Your task to perform on an android device: Is it going to rain tomorrow? Image 0: 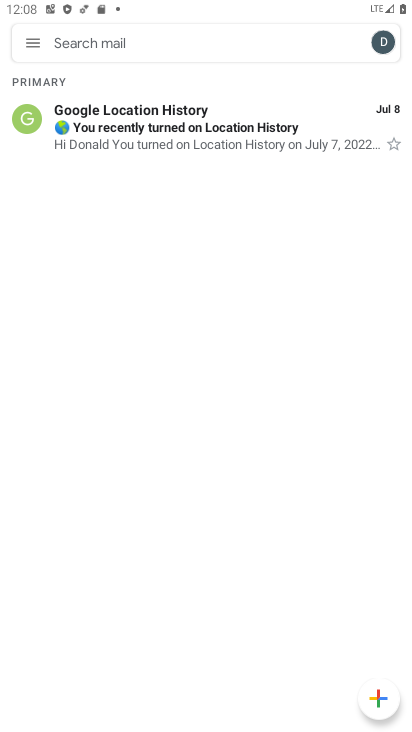
Step 0: press home button
Your task to perform on an android device: Is it going to rain tomorrow? Image 1: 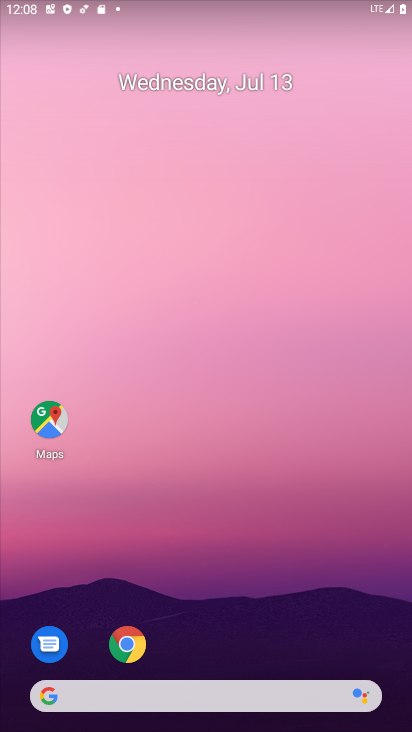
Step 1: drag from (198, 625) to (221, 151)
Your task to perform on an android device: Is it going to rain tomorrow? Image 2: 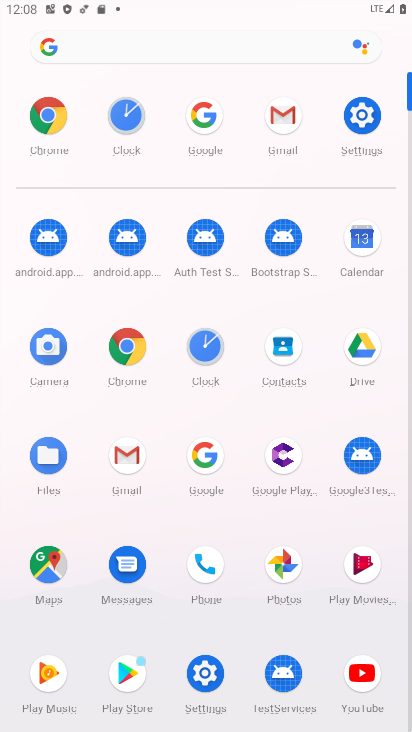
Step 2: click (210, 118)
Your task to perform on an android device: Is it going to rain tomorrow? Image 3: 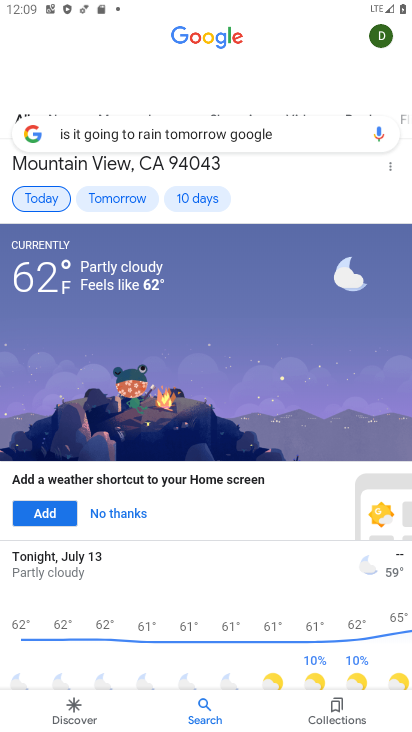
Step 3: click (118, 196)
Your task to perform on an android device: Is it going to rain tomorrow? Image 4: 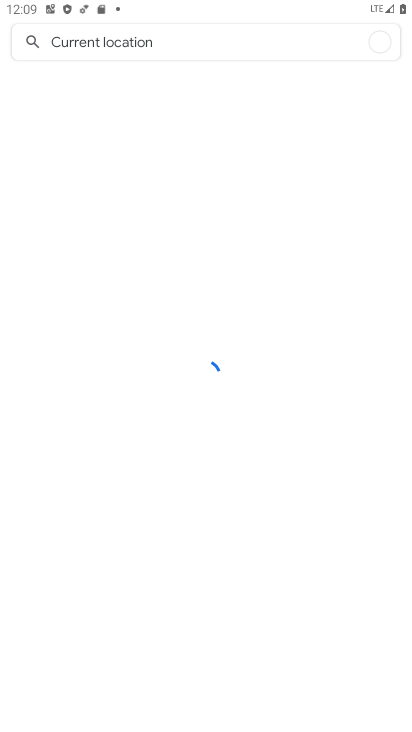
Step 4: task complete